Your task to perform on an android device: Add razer blade to the cart on target Image 0: 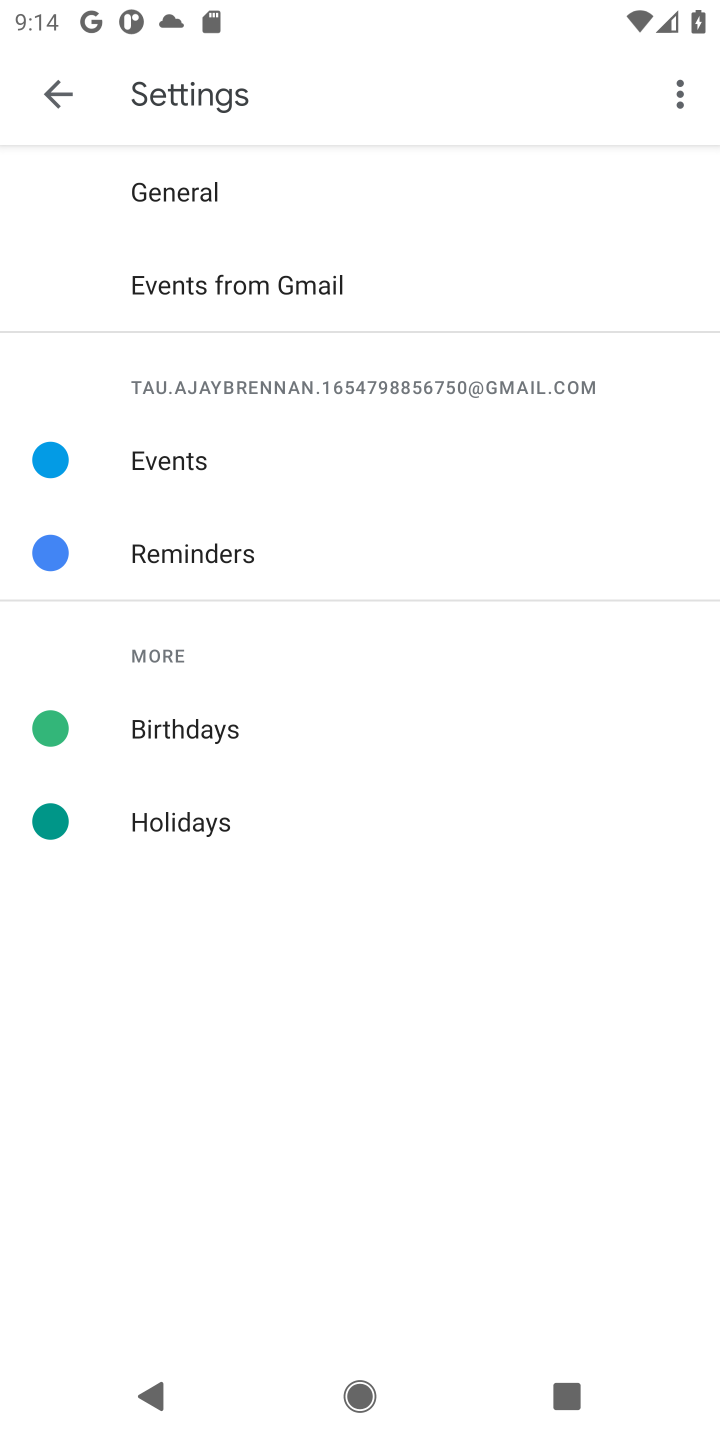
Step 0: press home button
Your task to perform on an android device: Add razer blade to the cart on target Image 1: 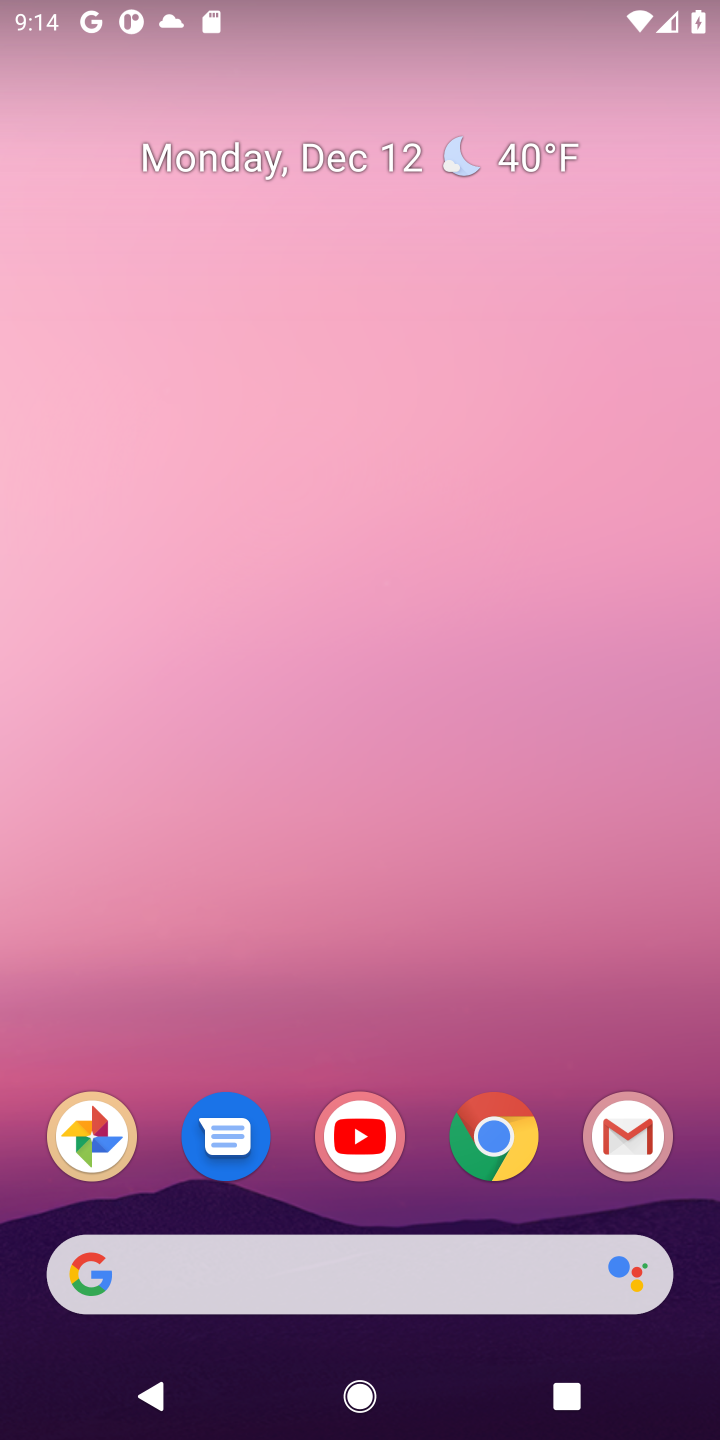
Step 1: click (501, 1152)
Your task to perform on an android device: Add razer blade to the cart on target Image 2: 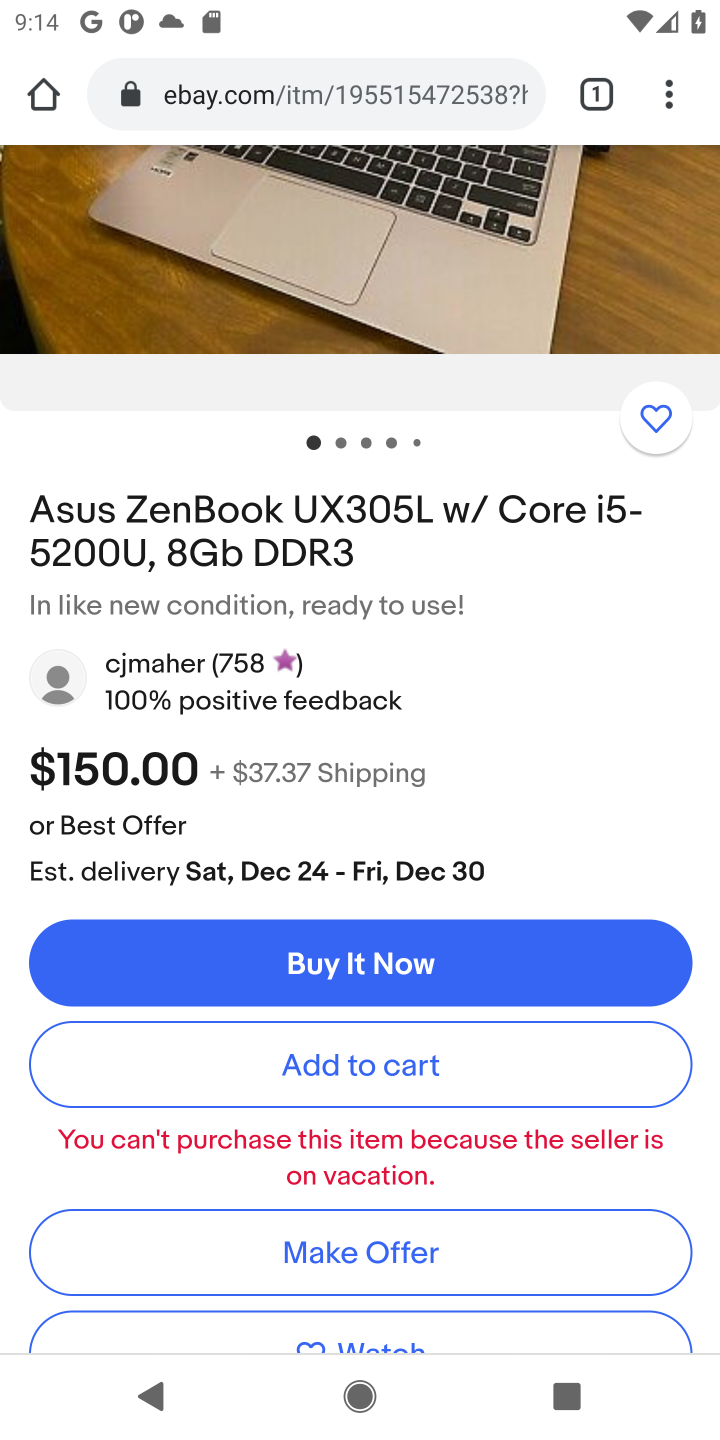
Step 2: click (305, 98)
Your task to perform on an android device: Add razer blade to the cart on target Image 3: 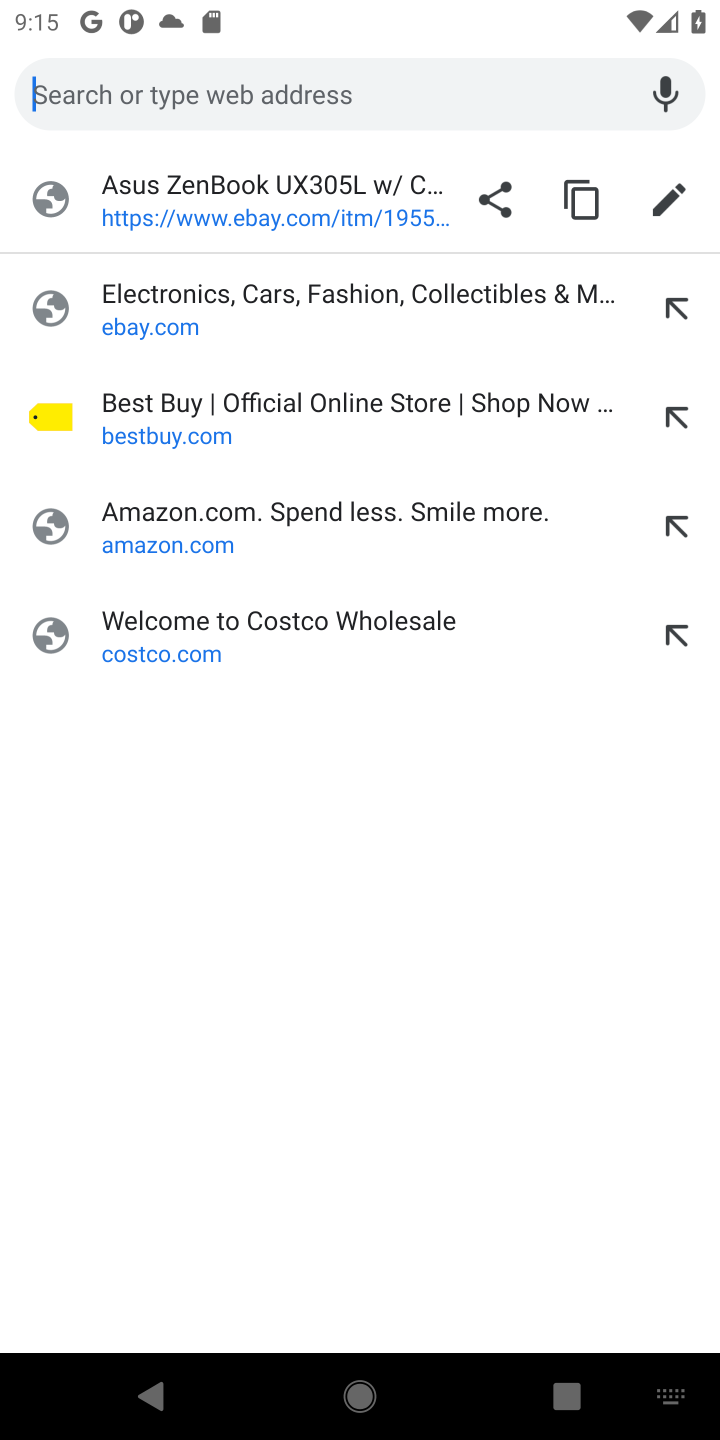
Step 3: type "target.com"
Your task to perform on an android device: Add razer blade to the cart on target Image 4: 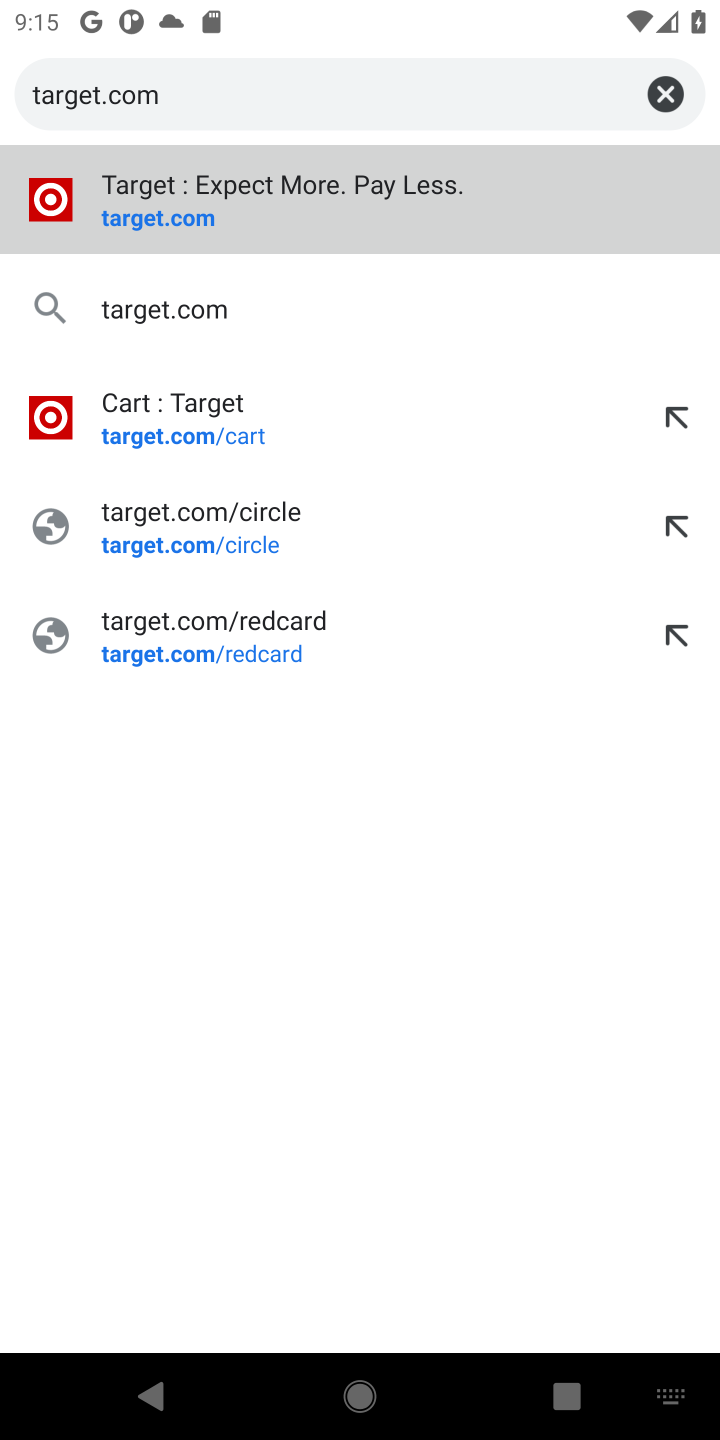
Step 4: click (149, 219)
Your task to perform on an android device: Add razer blade to the cart on target Image 5: 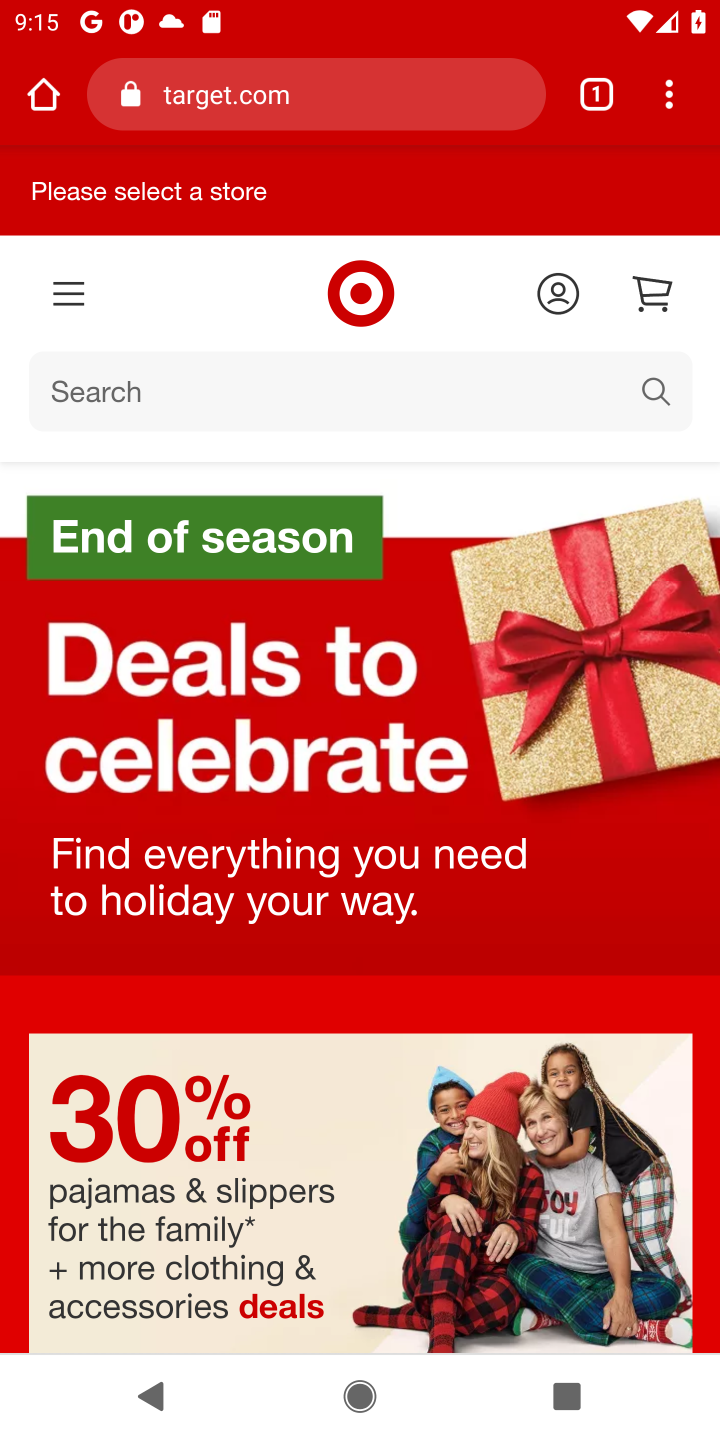
Step 5: click (108, 399)
Your task to perform on an android device: Add razer blade to the cart on target Image 6: 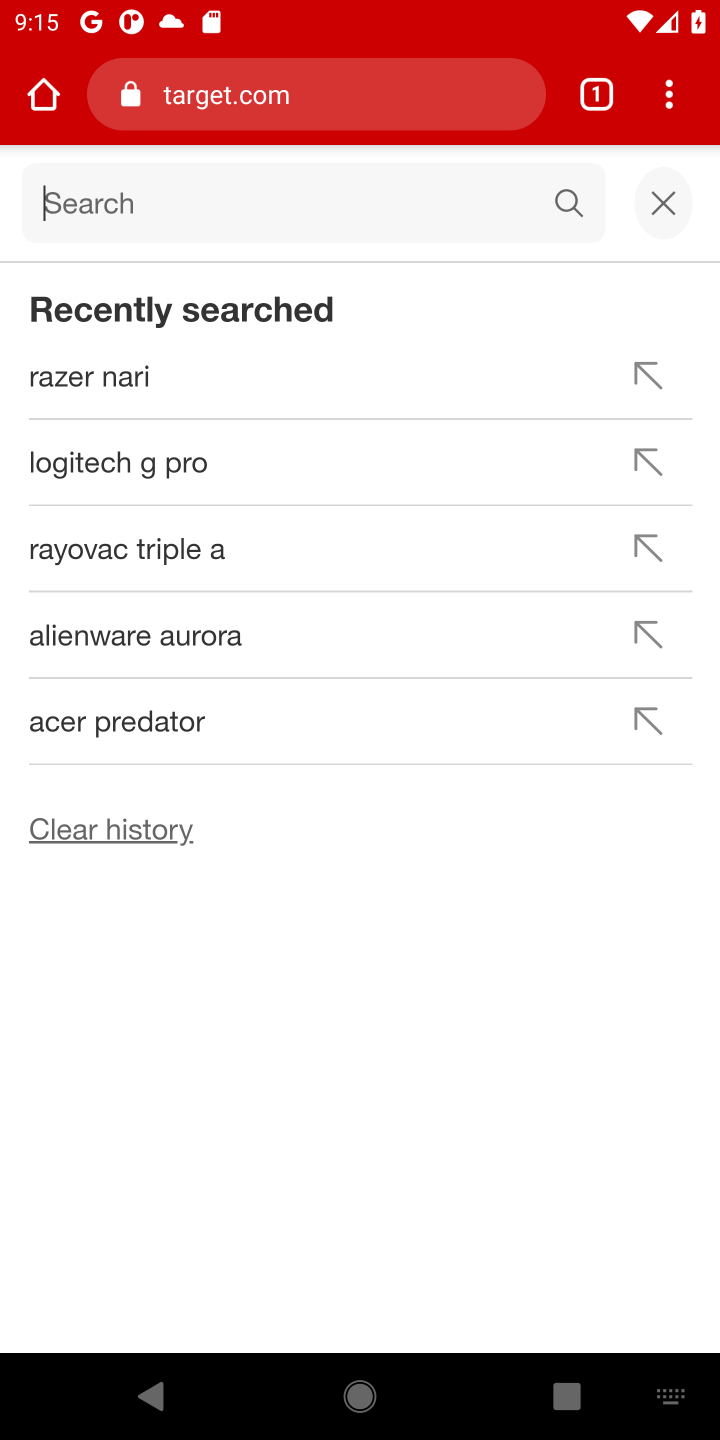
Step 6: click (95, 217)
Your task to perform on an android device: Add razer blade to the cart on target Image 7: 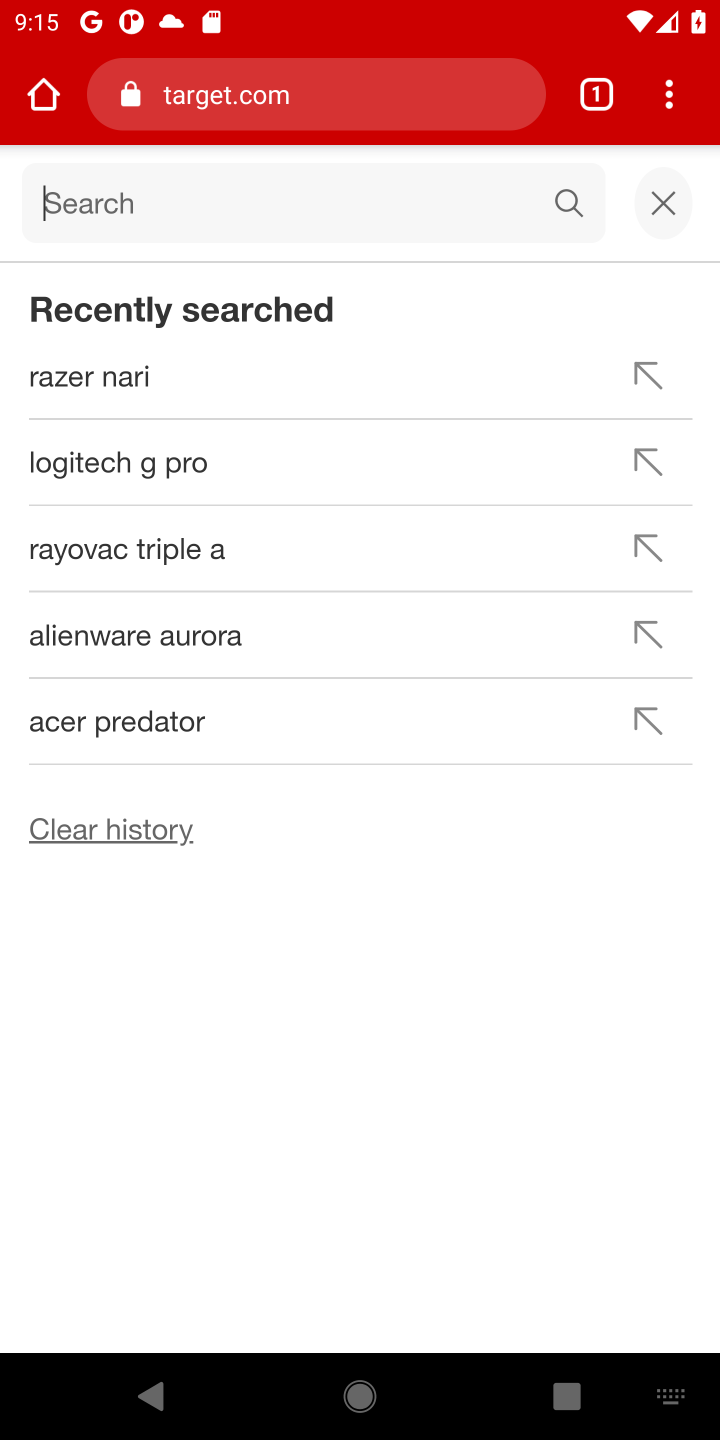
Step 7: type " razer blade"
Your task to perform on an android device: Add razer blade to the cart on target Image 8: 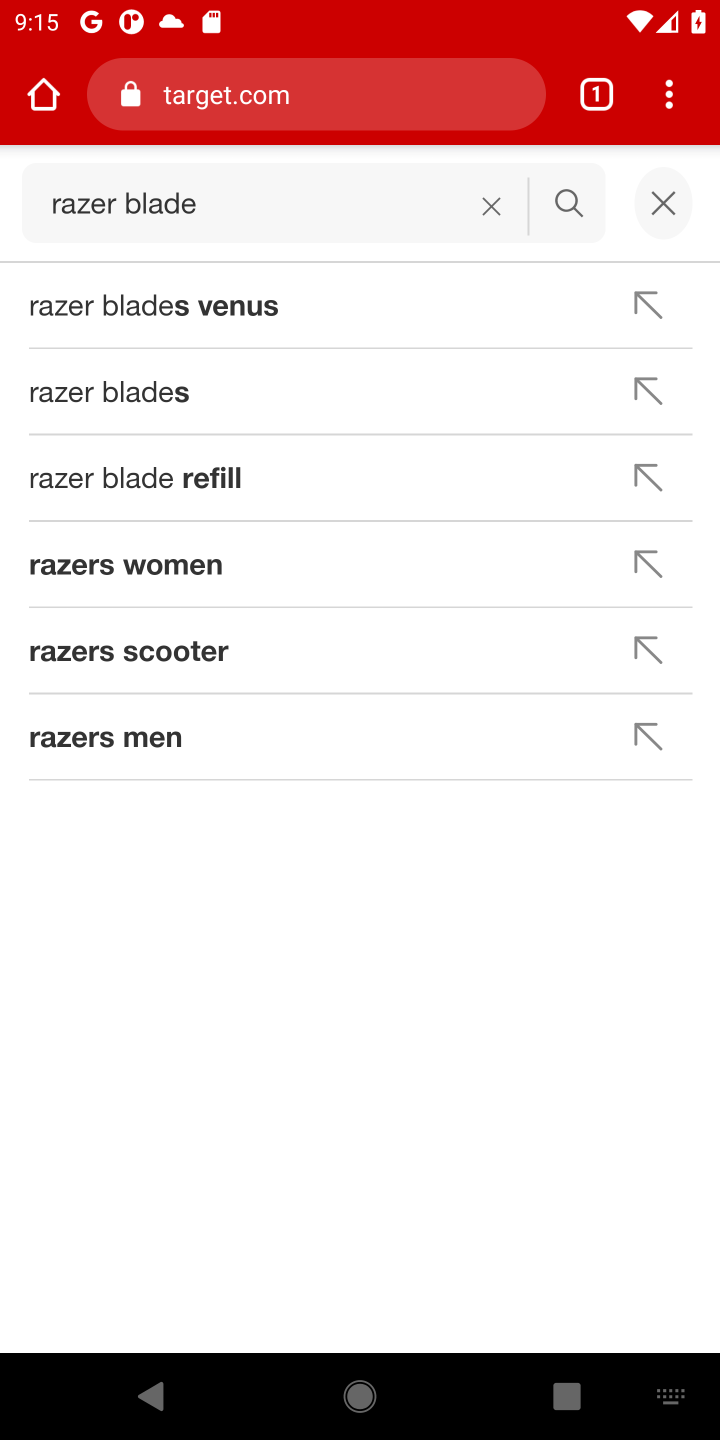
Step 8: click (581, 209)
Your task to perform on an android device: Add razer blade to the cart on target Image 9: 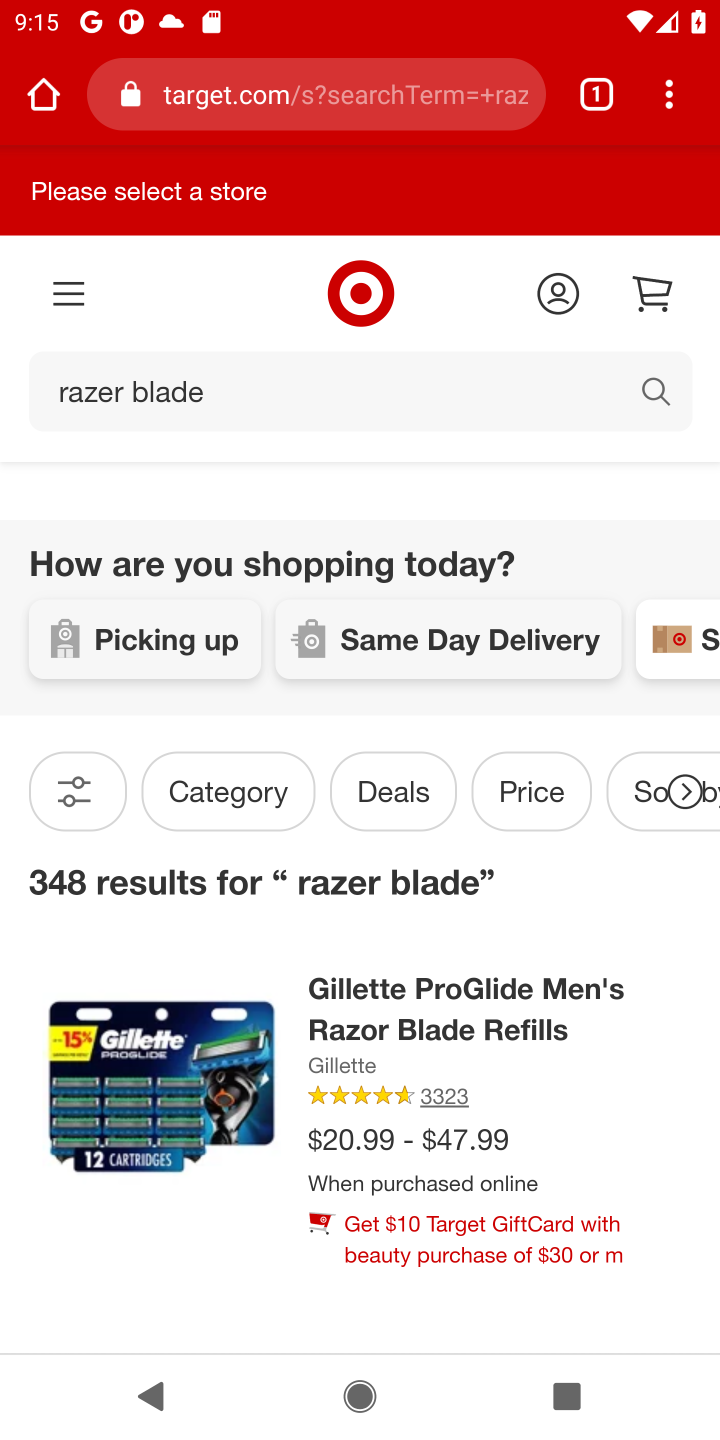
Step 9: task complete